Your task to perform on an android device: Go to Yahoo.com Image 0: 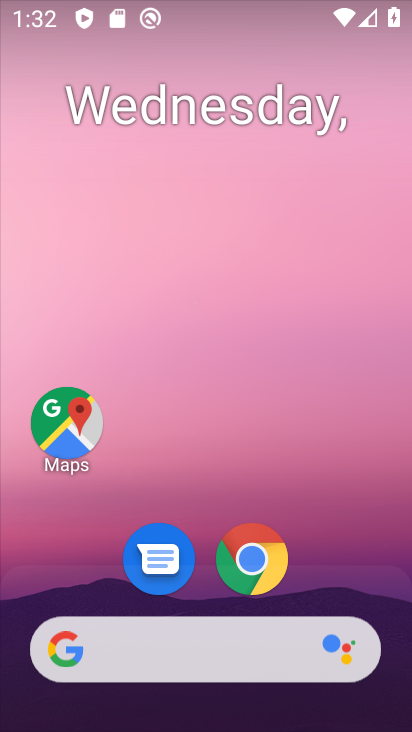
Step 0: drag from (231, 558) to (254, 156)
Your task to perform on an android device: Go to Yahoo.com Image 1: 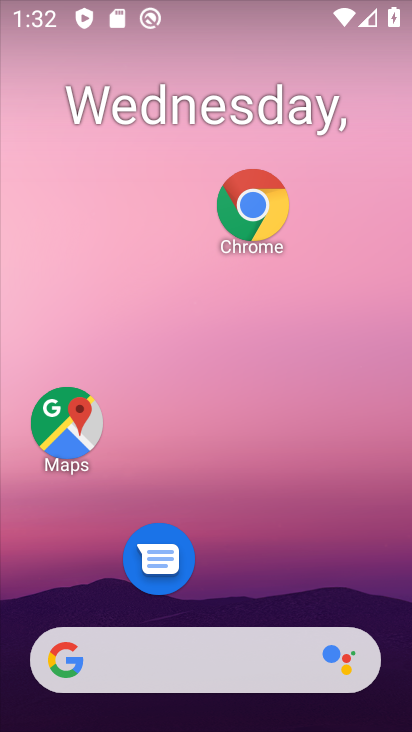
Step 1: drag from (220, 627) to (209, 151)
Your task to perform on an android device: Go to Yahoo.com Image 2: 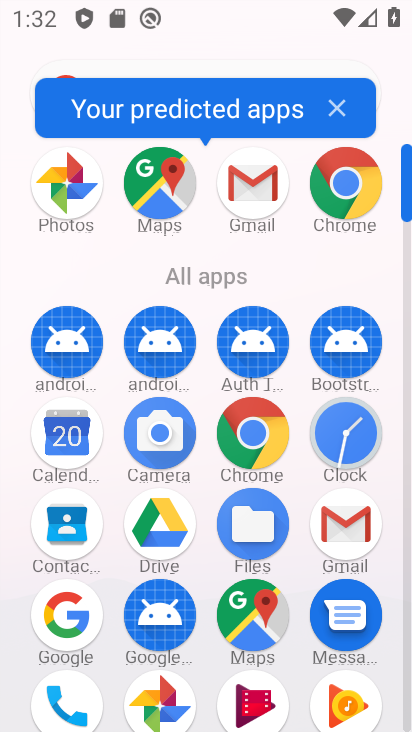
Step 2: click (346, 116)
Your task to perform on an android device: Go to Yahoo.com Image 3: 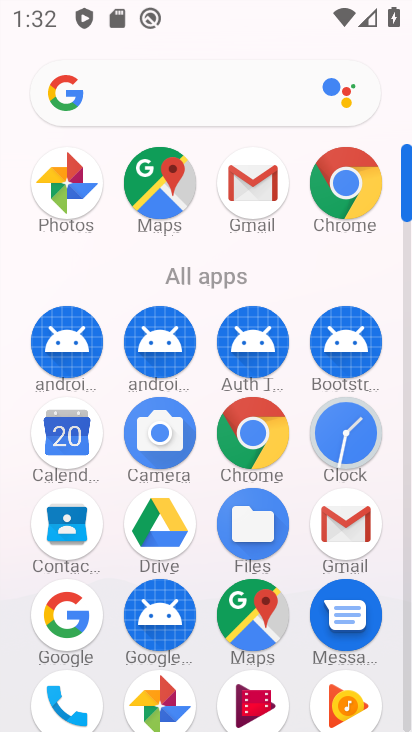
Step 3: click (341, 185)
Your task to perform on an android device: Go to Yahoo.com Image 4: 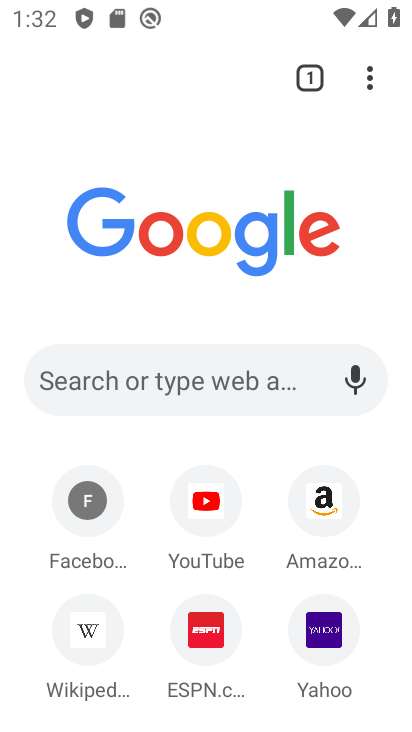
Step 4: click (326, 640)
Your task to perform on an android device: Go to Yahoo.com Image 5: 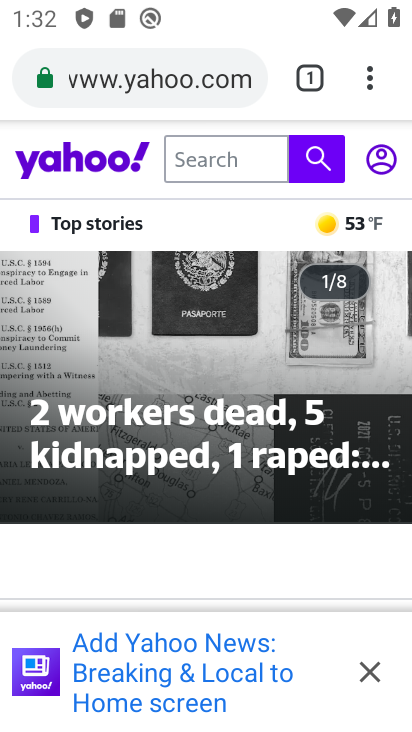
Step 5: click (377, 669)
Your task to perform on an android device: Go to Yahoo.com Image 6: 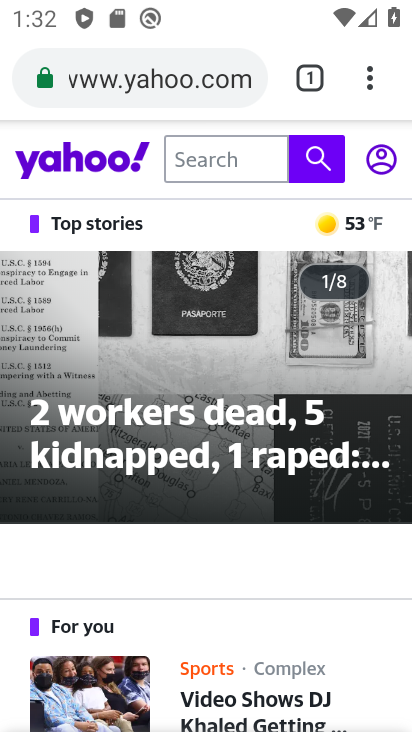
Step 6: task complete